Your task to perform on an android device: Do I have any events this weekend? Image 0: 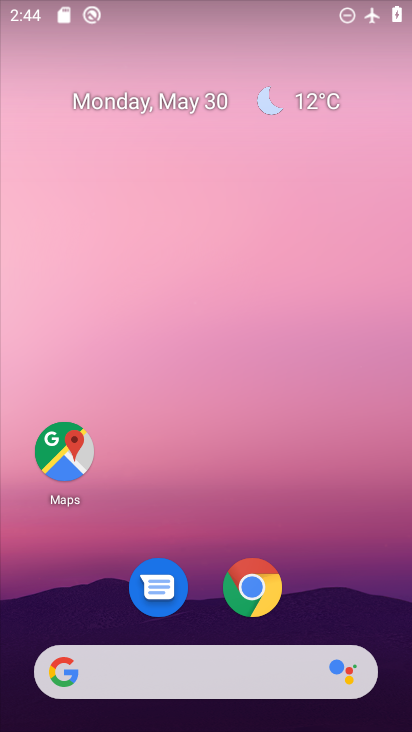
Step 0: drag from (206, 603) to (285, 126)
Your task to perform on an android device: Do I have any events this weekend? Image 1: 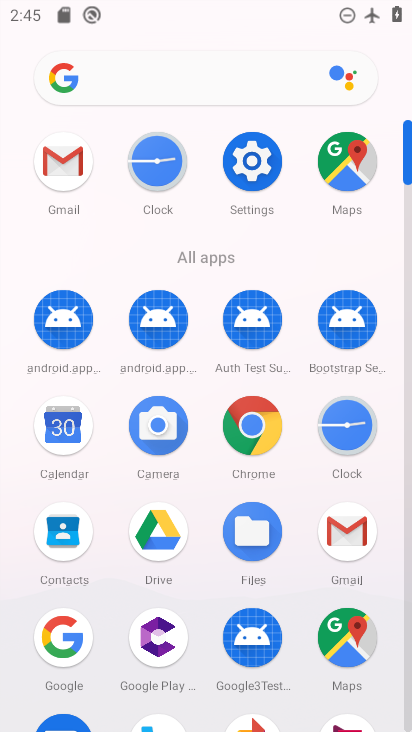
Step 1: click (48, 428)
Your task to perform on an android device: Do I have any events this weekend? Image 2: 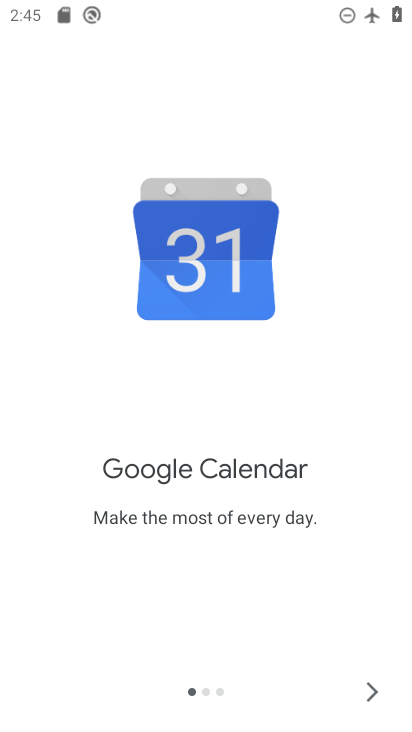
Step 2: click (365, 687)
Your task to perform on an android device: Do I have any events this weekend? Image 3: 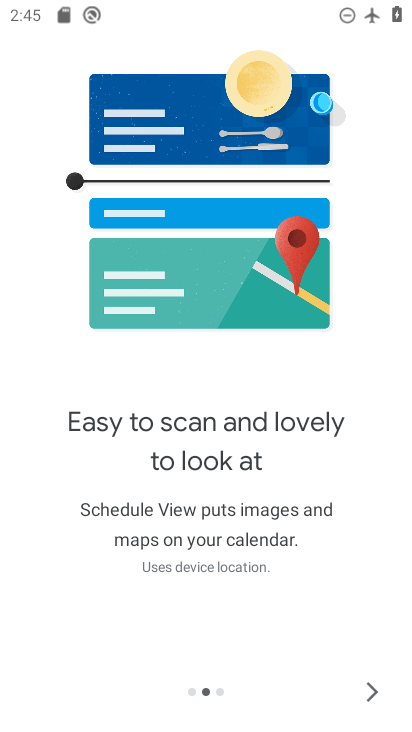
Step 3: click (366, 684)
Your task to perform on an android device: Do I have any events this weekend? Image 4: 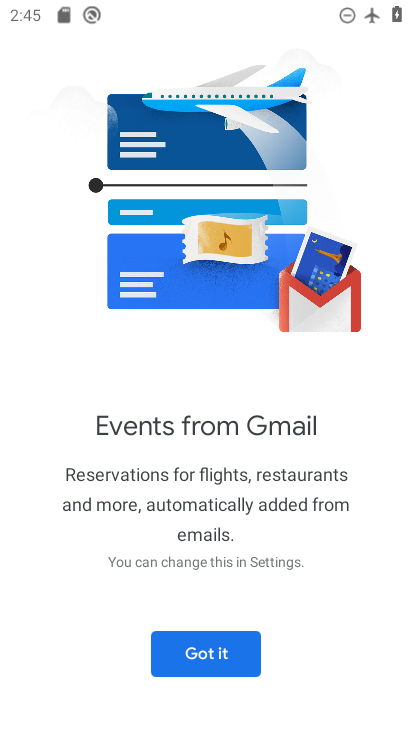
Step 4: click (215, 661)
Your task to perform on an android device: Do I have any events this weekend? Image 5: 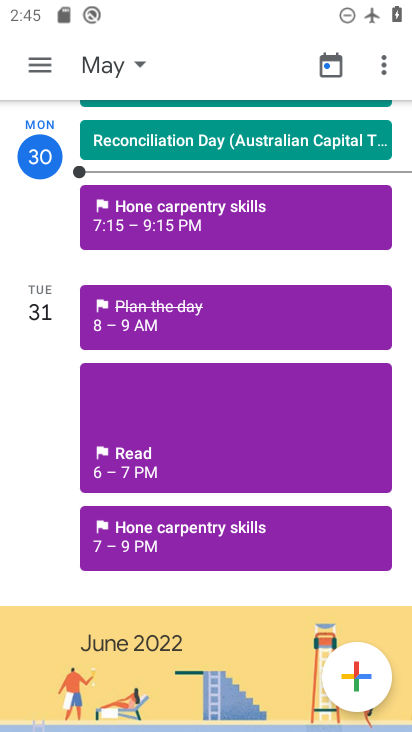
Step 5: click (135, 68)
Your task to perform on an android device: Do I have any events this weekend? Image 6: 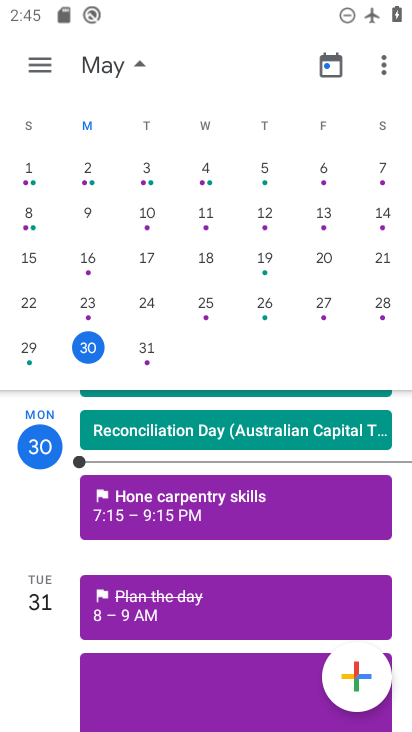
Step 6: drag from (401, 200) to (32, 417)
Your task to perform on an android device: Do I have any events this weekend? Image 7: 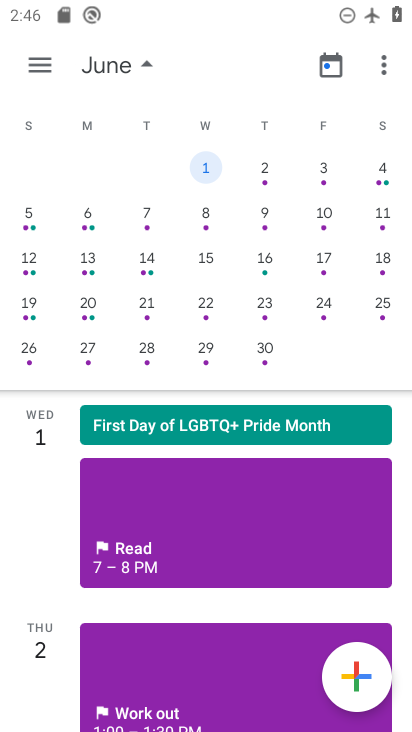
Step 7: click (315, 172)
Your task to perform on an android device: Do I have any events this weekend? Image 8: 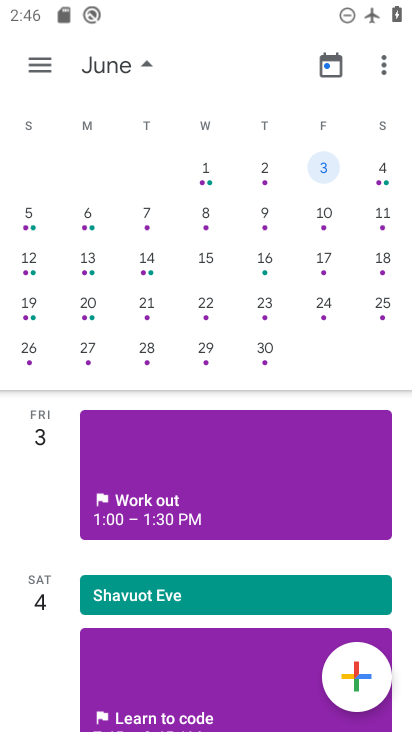
Step 8: click (387, 174)
Your task to perform on an android device: Do I have any events this weekend? Image 9: 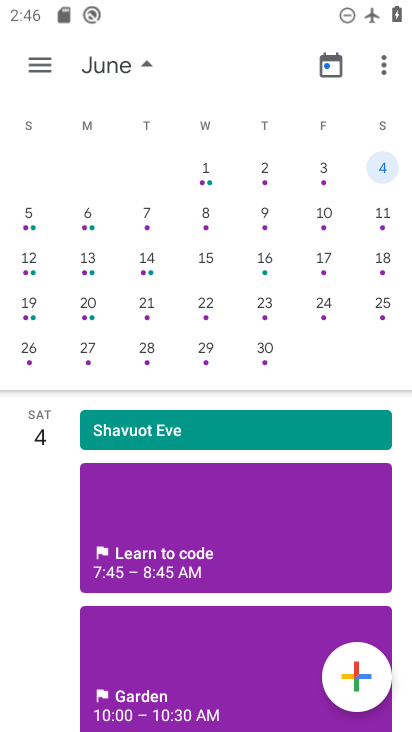
Step 9: click (16, 217)
Your task to perform on an android device: Do I have any events this weekend? Image 10: 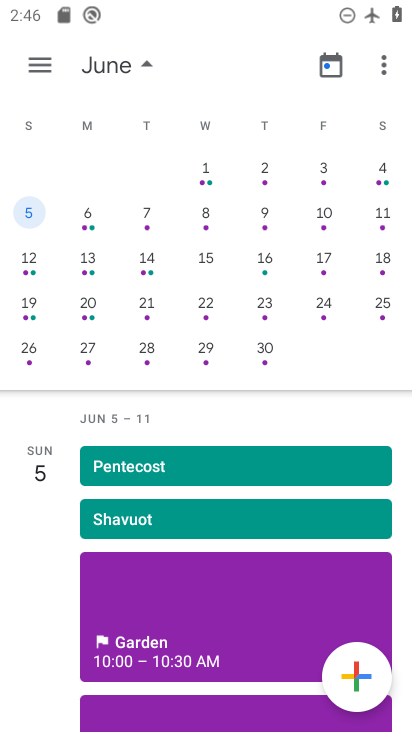
Step 10: task complete